Your task to perform on an android device: Open the calendar and show me this week's events? Image 0: 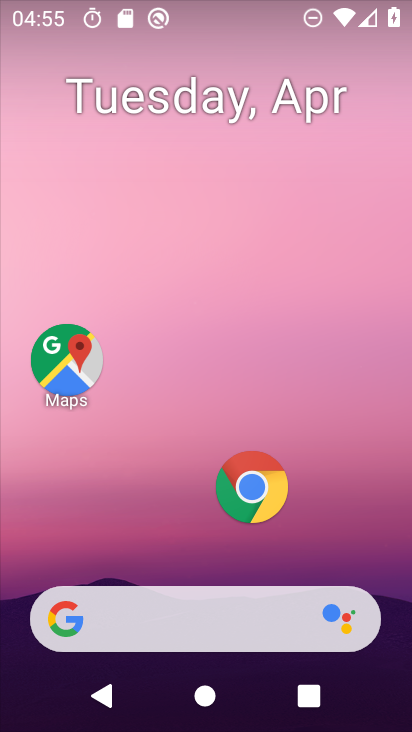
Step 0: drag from (178, 472) to (323, 50)
Your task to perform on an android device: Open the calendar and show me this week's events? Image 1: 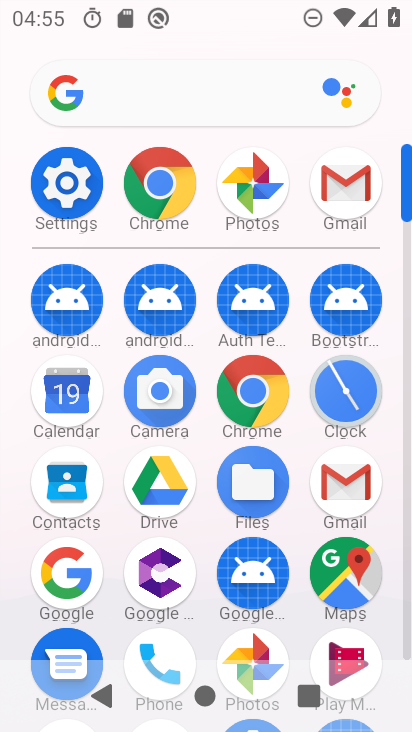
Step 1: click (71, 394)
Your task to perform on an android device: Open the calendar and show me this week's events? Image 2: 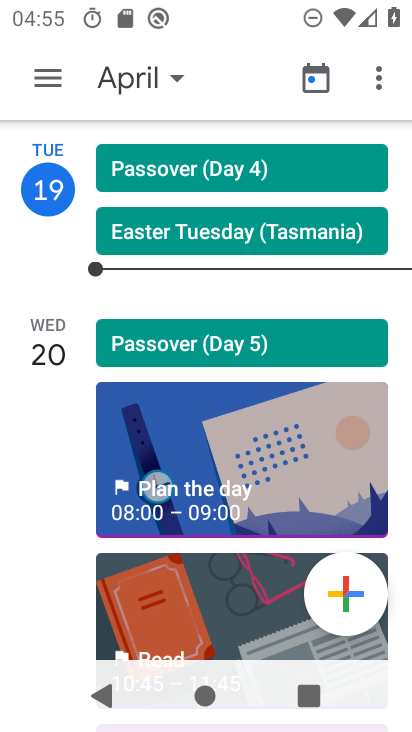
Step 2: click (166, 74)
Your task to perform on an android device: Open the calendar and show me this week's events? Image 3: 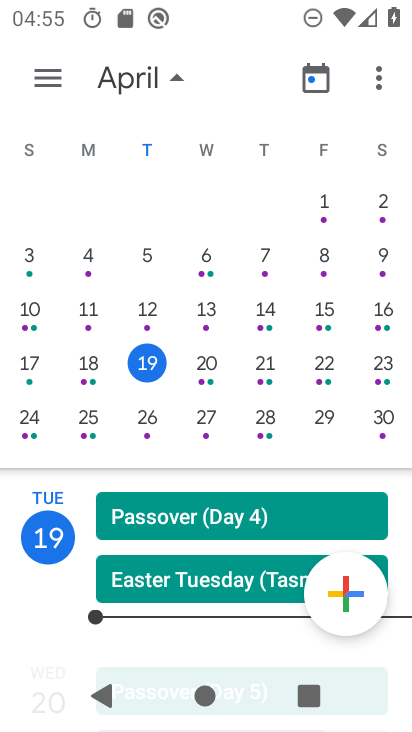
Step 3: click (141, 365)
Your task to perform on an android device: Open the calendar and show me this week's events? Image 4: 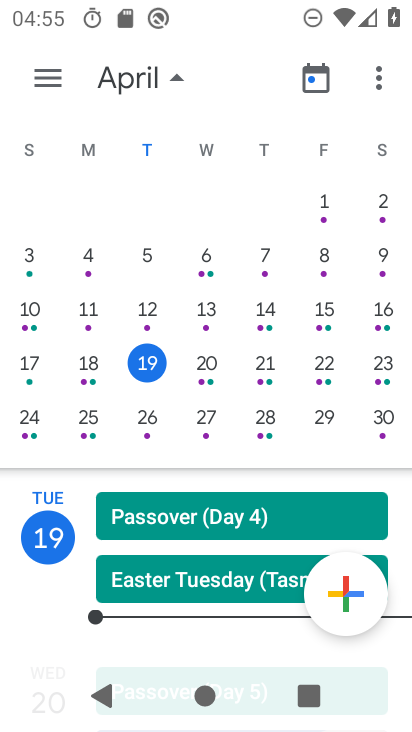
Step 4: drag from (207, 559) to (290, 196)
Your task to perform on an android device: Open the calendar and show me this week's events? Image 5: 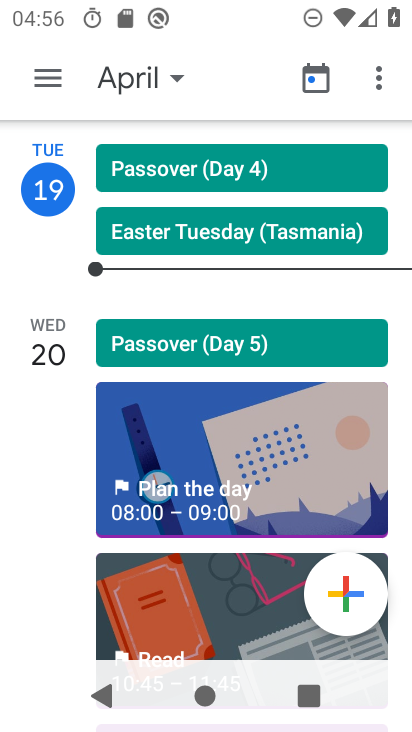
Step 5: drag from (211, 559) to (360, 75)
Your task to perform on an android device: Open the calendar and show me this week's events? Image 6: 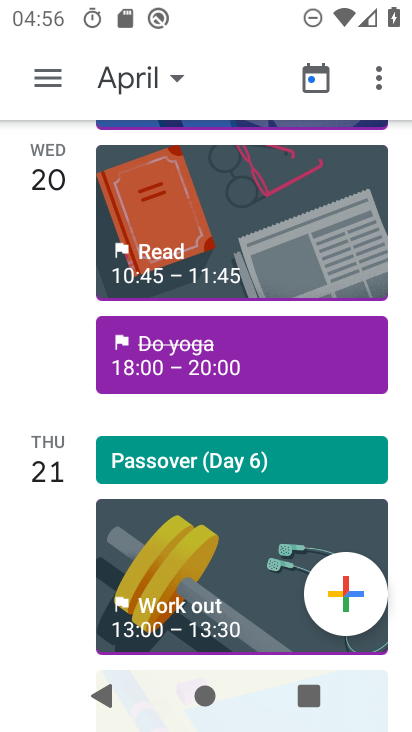
Step 6: drag from (221, 546) to (343, 100)
Your task to perform on an android device: Open the calendar and show me this week's events? Image 7: 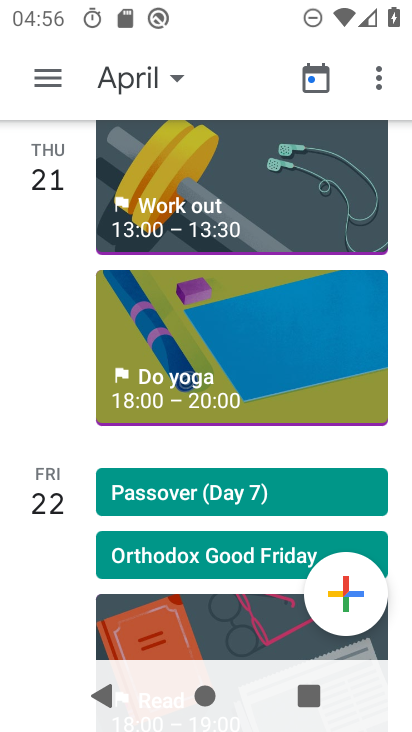
Step 7: click (252, 340)
Your task to perform on an android device: Open the calendar and show me this week's events? Image 8: 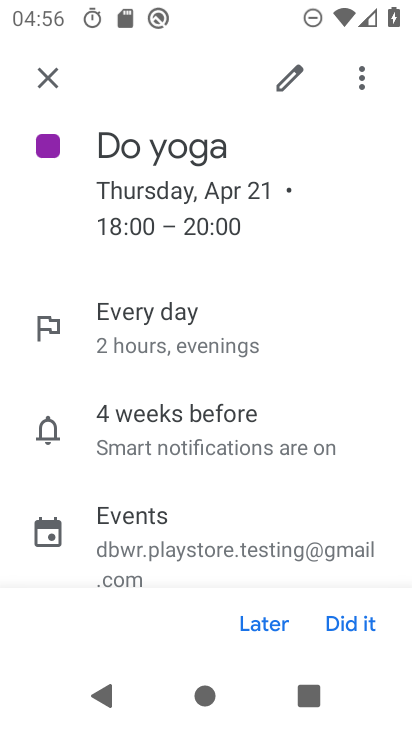
Step 8: task complete